Your task to perform on an android device: check out phone information Image 0: 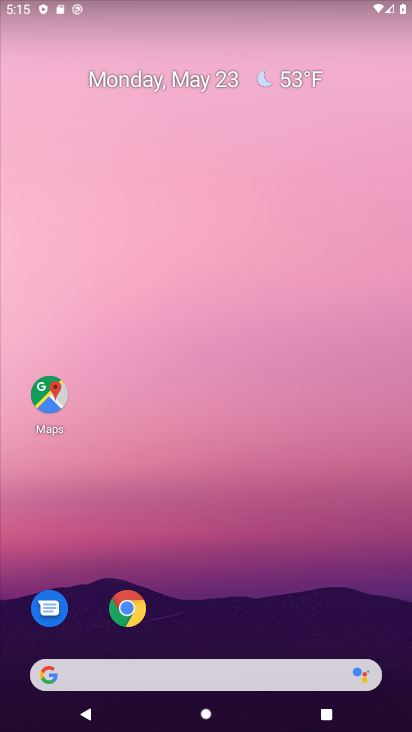
Step 0: press home button
Your task to perform on an android device: check out phone information Image 1: 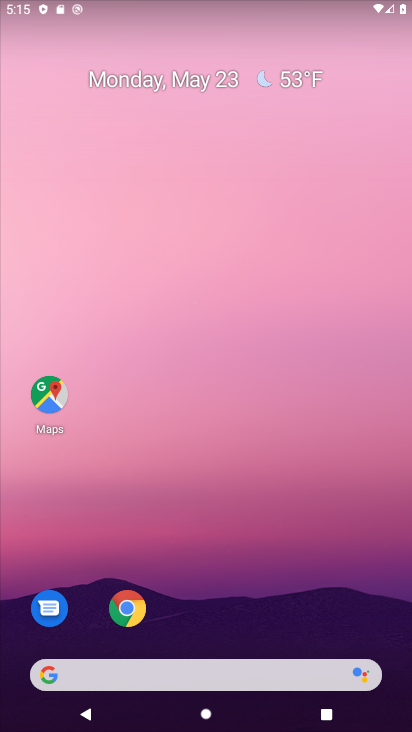
Step 1: drag from (81, 594) to (336, 98)
Your task to perform on an android device: check out phone information Image 2: 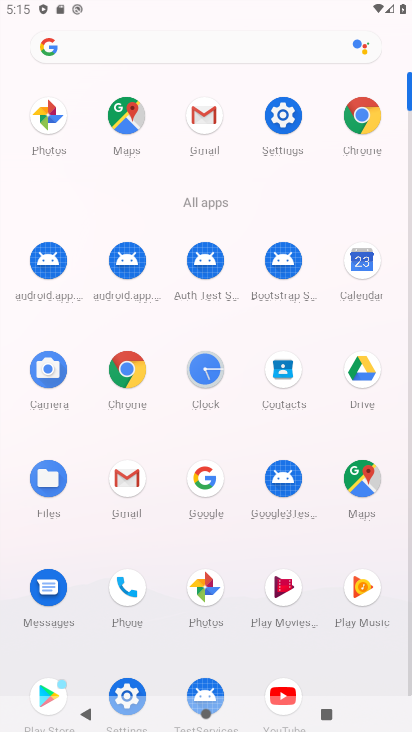
Step 2: click (132, 585)
Your task to perform on an android device: check out phone information Image 3: 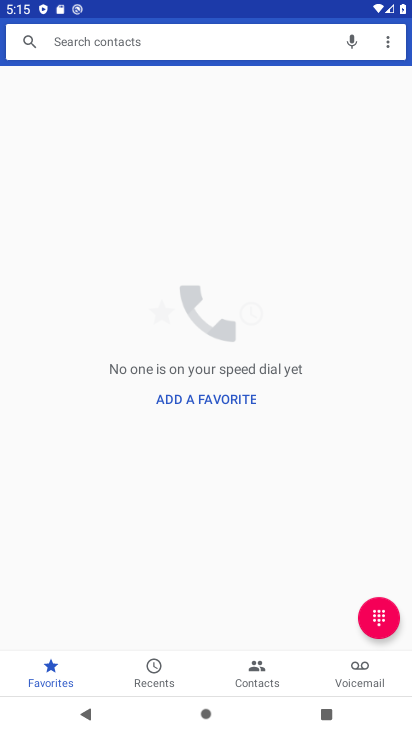
Step 3: click (152, 682)
Your task to perform on an android device: check out phone information Image 4: 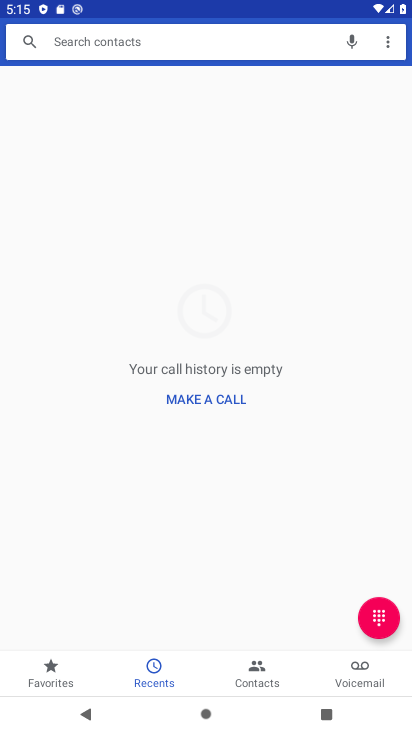
Step 4: click (241, 669)
Your task to perform on an android device: check out phone information Image 5: 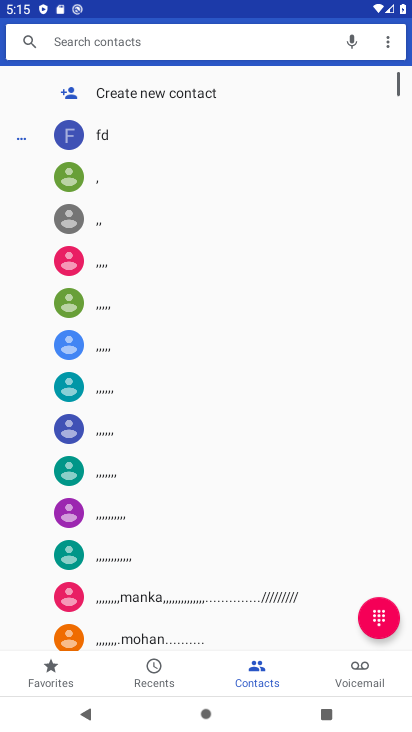
Step 5: task complete